Your task to perform on an android device: open app "Viber Messenger" (install if not already installed) Image 0: 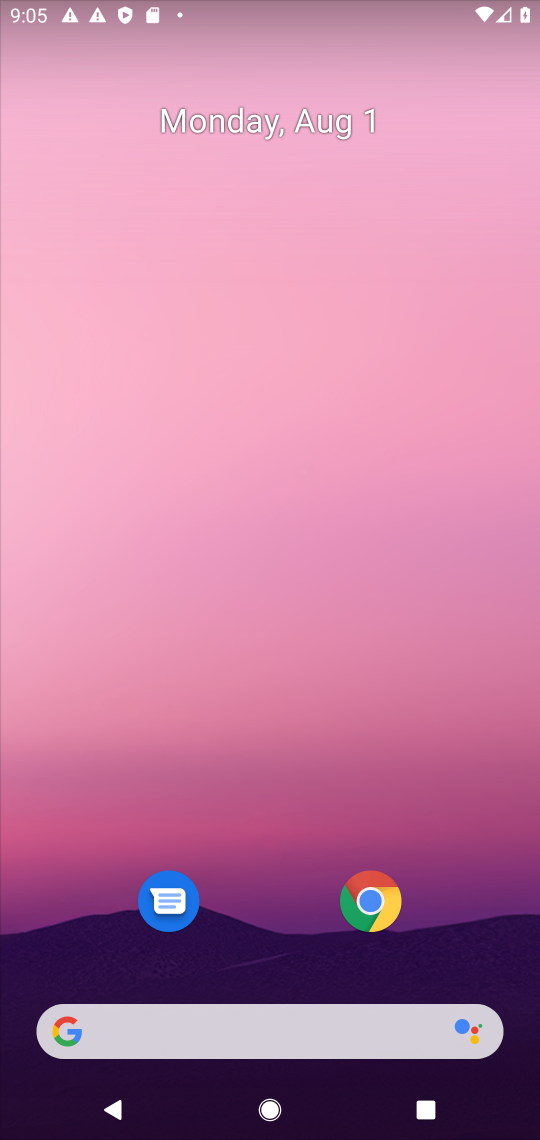
Step 0: drag from (263, 937) to (236, 199)
Your task to perform on an android device: open app "Viber Messenger" (install if not already installed) Image 1: 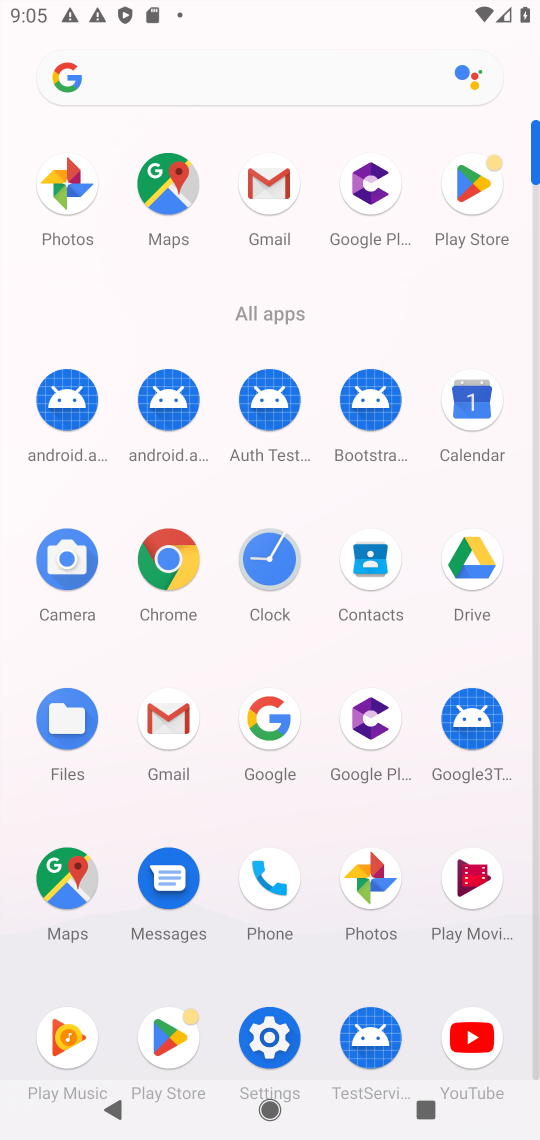
Step 1: click (467, 163)
Your task to perform on an android device: open app "Viber Messenger" (install if not already installed) Image 2: 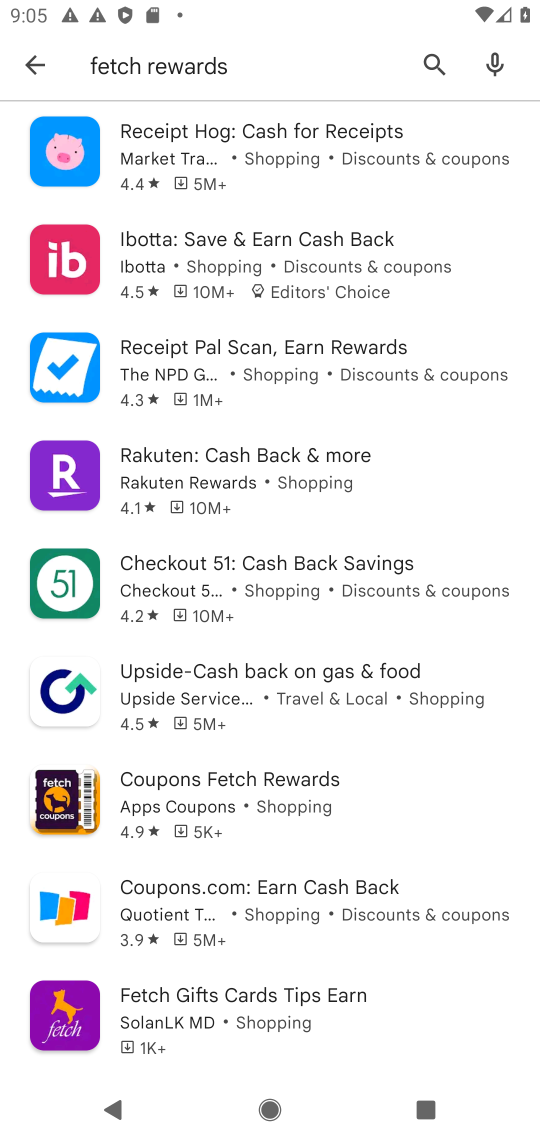
Step 2: click (421, 48)
Your task to perform on an android device: open app "Viber Messenger" (install if not already installed) Image 3: 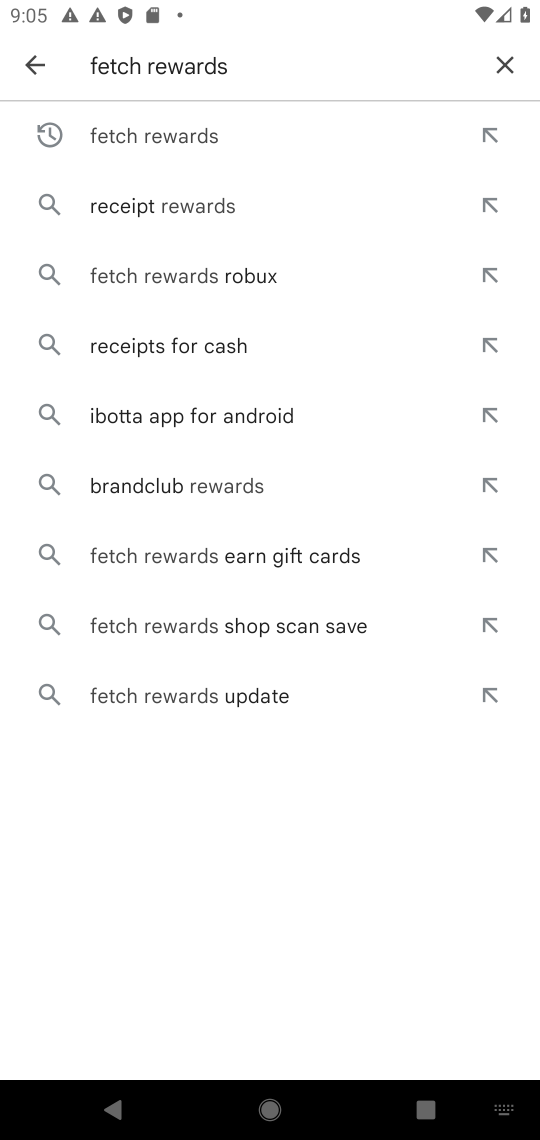
Step 3: click (511, 57)
Your task to perform on an android device: open app "Viber Messenger" (install if not already installed) Image 4: 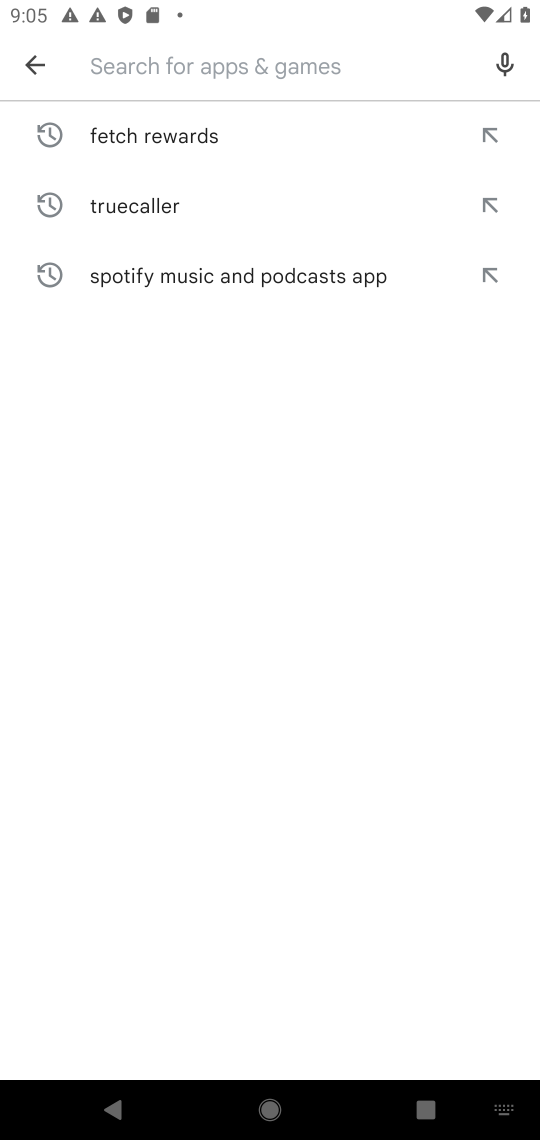
Step 4: type "viber messenger"
Your task to perform on an android device: open app "Viber Messenger" (install if not already installed) Image 5: 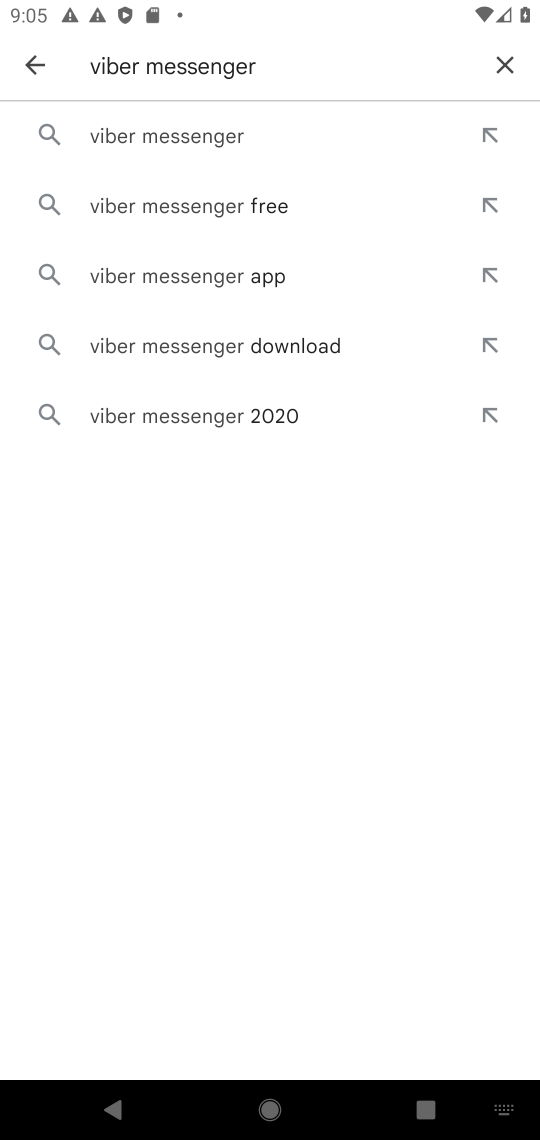
Step 5: click (202, 127)
Your task to perform on an android device: open app "Viber Messenger" (install if not already installed) Image 6: 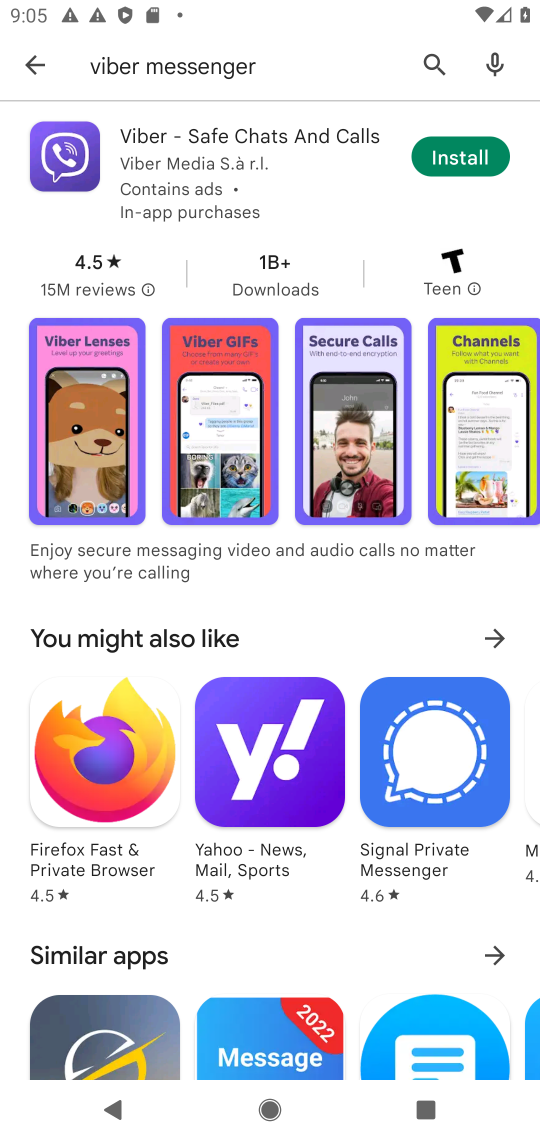
Step 6: click (211, 144)
Your task to perform on an android device: open app "Viber Messenger" (install if not already installed) Image 7: 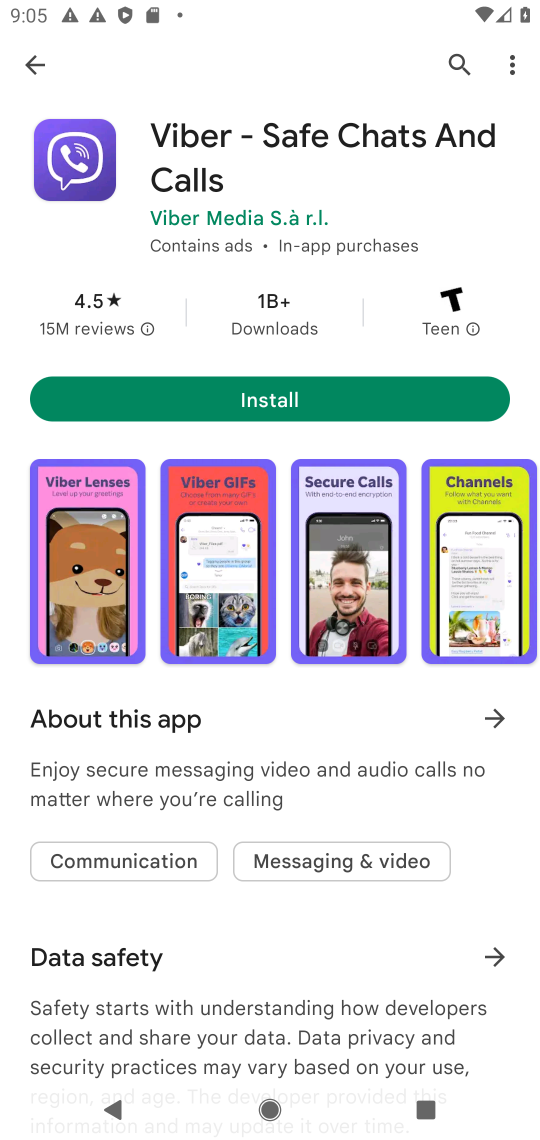
Step 7: click (283, 401)
Your task to perform on an android device: open app "Viber Messenger" (install if not already installed) Image 8: 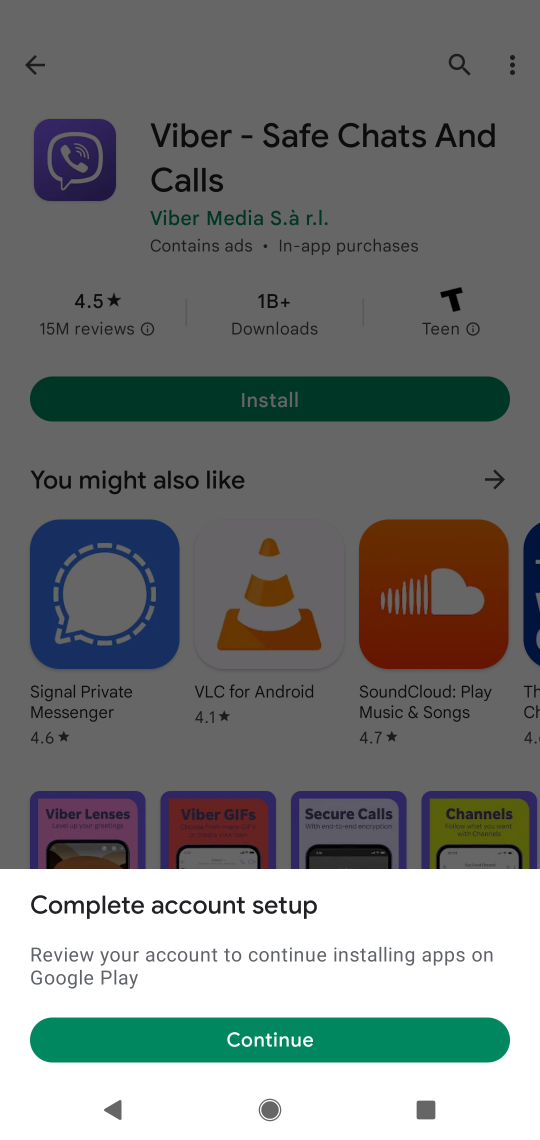
Step 8: click (337, 1028)
Your task to perform on an android device: open app "Viber Messenger" (install if not already installed) Image 9: 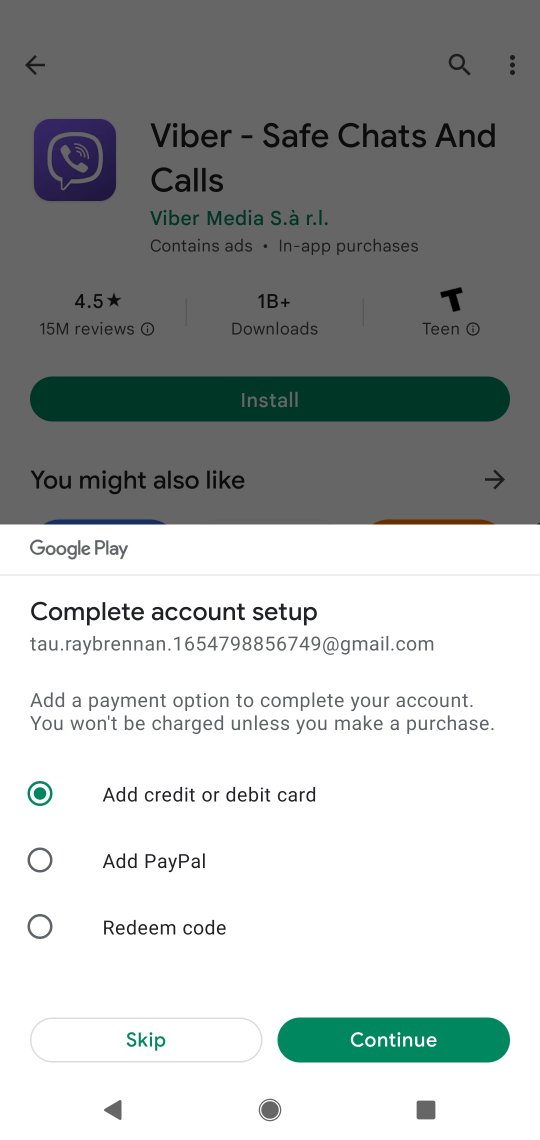
Step 9: click (143, 1046)
Your task to perform on an android device: open app "Viber Messenger" (install if not already installed) Image 10: 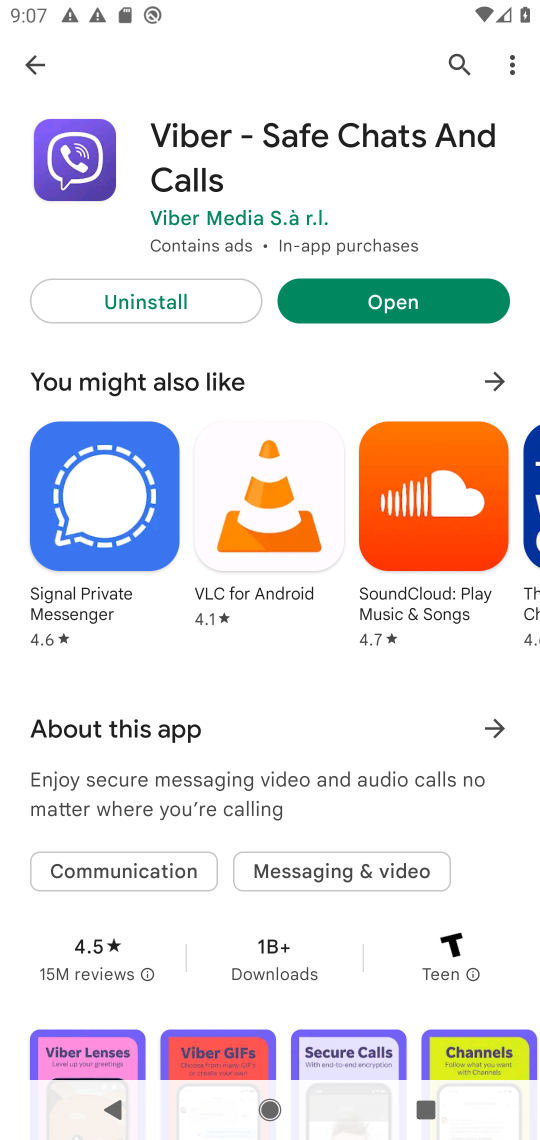
Step 10: click (467, 297)
Your task to perform on an android device: open app "Viber Messenger" (install if not already installed) Image 11: 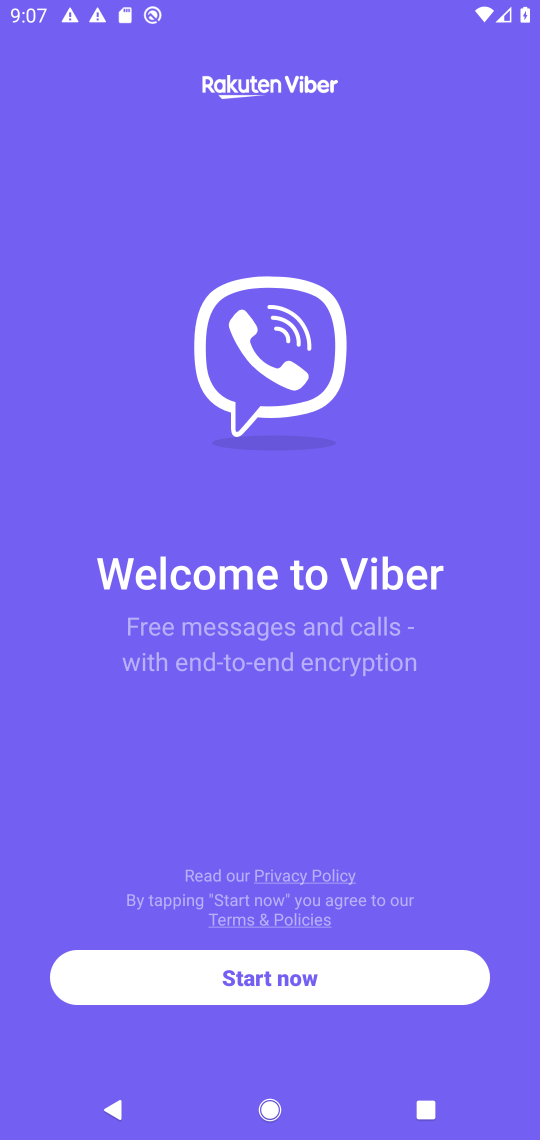
Step 11: task complete